Your task to perform on an android device: add a label to a message in the gmail app Image 0: 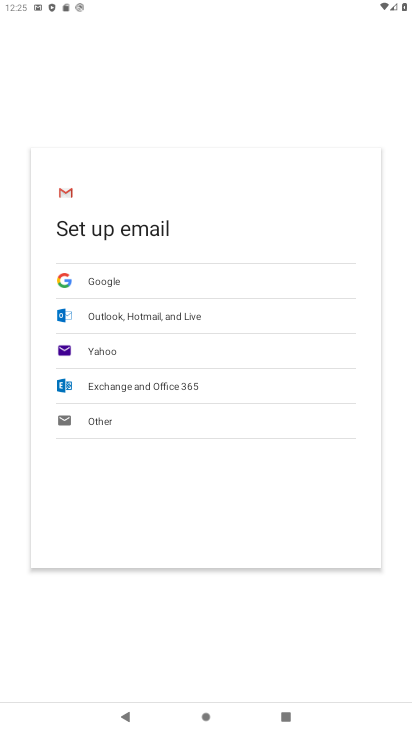
Step 0: drag from (266, 629) to (225, 178)
Your task to perform on an android device: add a label to a message in the gmail app Image 1: 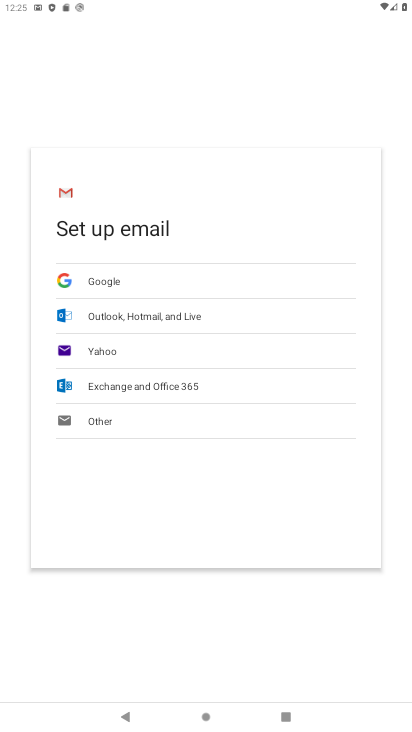
Step 1: press back button
Your task to perform on an android device: add a label to a message in the gmail app Image 2: 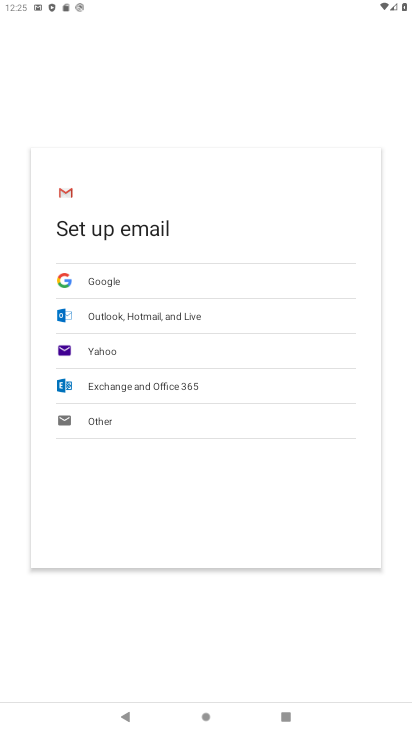
Step 2: press back button
Your task to perform on an android device: add a label to a message in the gmail app Image 3: 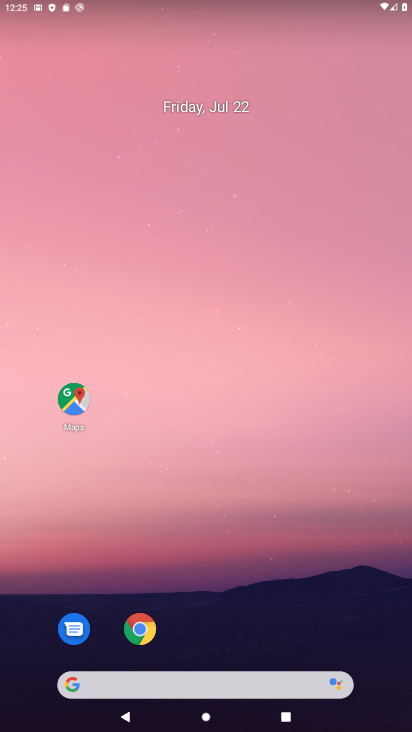
Step 3: drag from (290, 608) to (254, 77)
Your task to perform on an android device: add a label to a message in the gmail app Image 4: 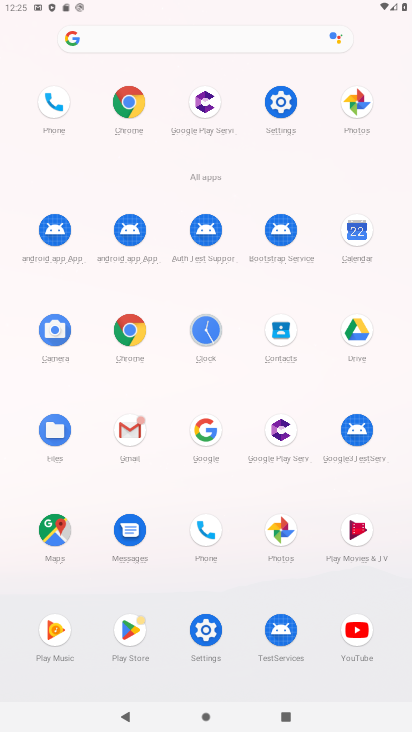
Step 4: drag from (265, 618) to (219, 174)
Your task to perform on an android device: add a label to a message in the gmail app Image 5: 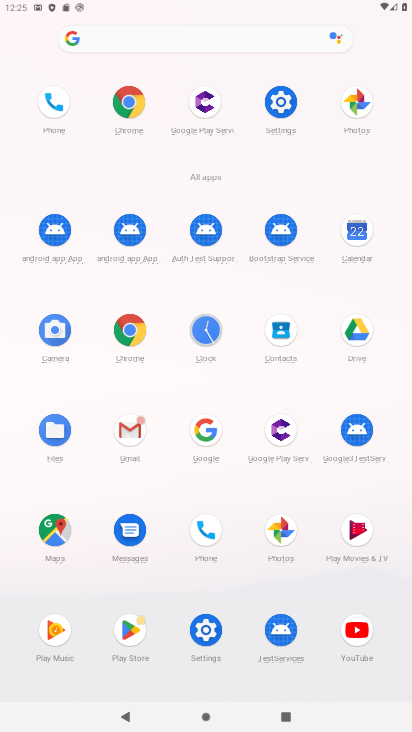
Step 5: click (123, 417)
Your task to perform on an android device: add a label to a message in the gmail app Image 6: 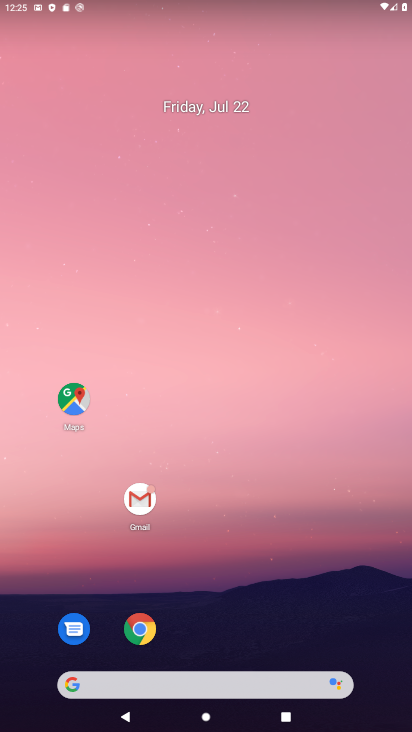
Step 6: click (133, 486)
Your task to perform on an android device: add a label to a message in the gmail app Image 7: 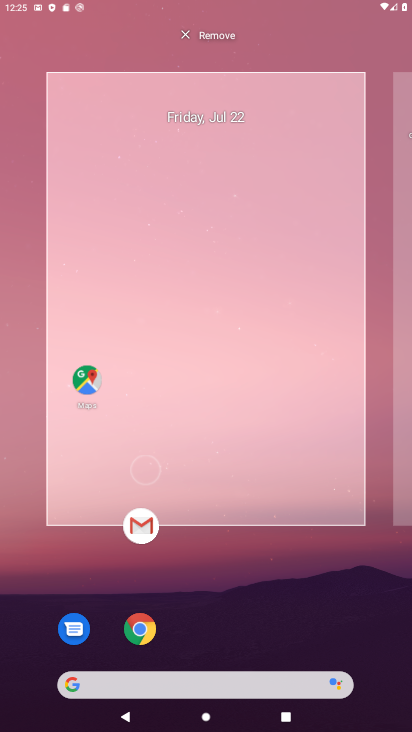
Step 7: drag from (144, 513) to (156, 473)
Your task to perform on an android device: add a label to a message in the gmail app Image 8: 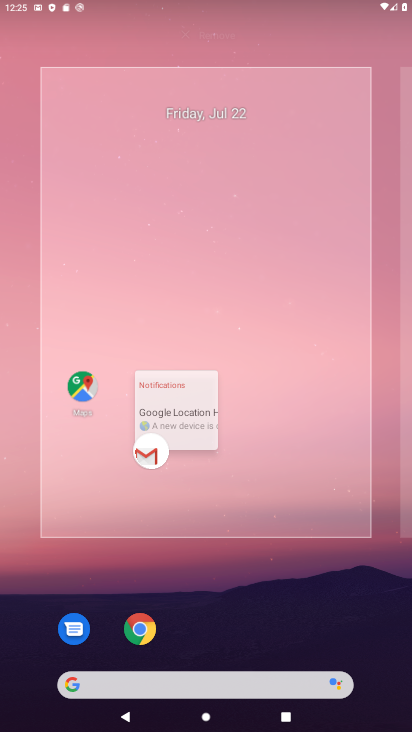
Step 8: click (157, 468)
Your task to perform on an android device: add a label to a message in the gmail app Image 9: 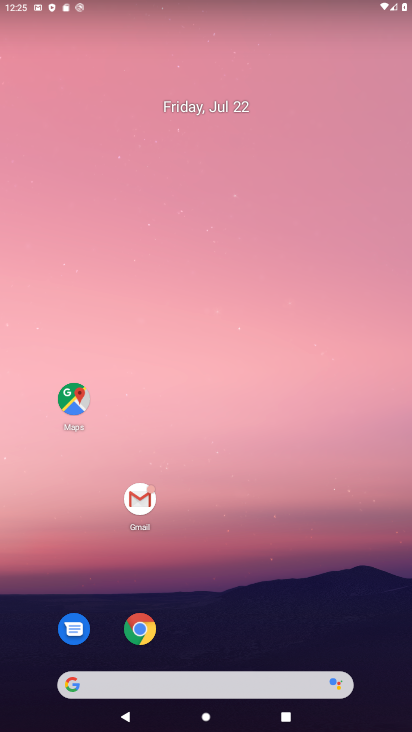
Step 9: drag from (222, 472) to (139, 35)
Your task to perform on an android device: add a label to a message in the gmail app Image 10: 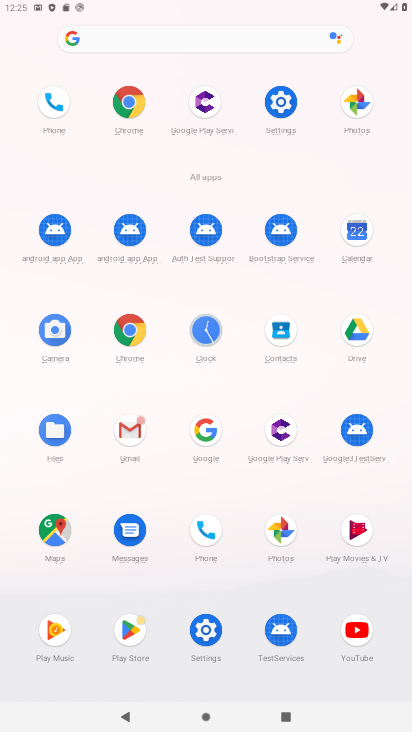
Step 10: drag from (244, 609) to (154, 114)
Your task to perform on an android device: add a label to a message in the gmail app Image 11: 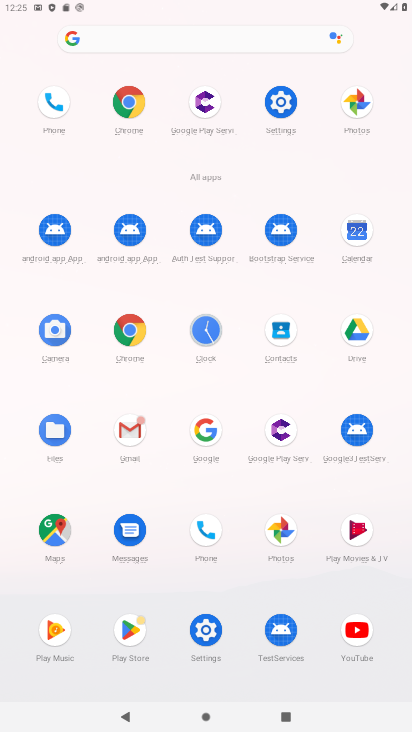
Step 11: click (137, 443)
Your task to perform on an android device: add a label to a message in the gmail app Image 12: 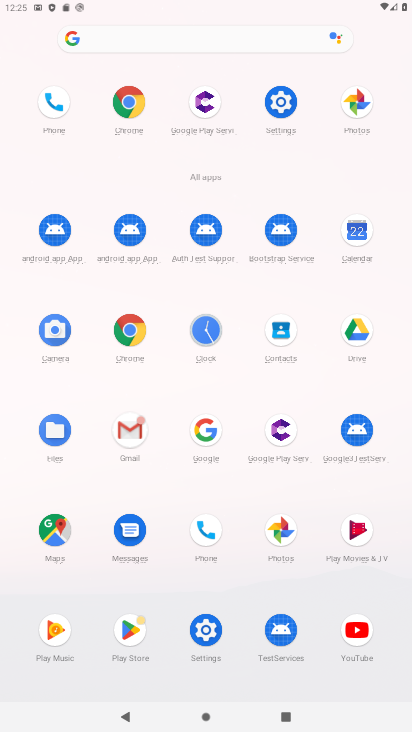
Step 12: click (131, 438)
Your task to perform on an android device: add a label to a message in the gmail app Image 13: 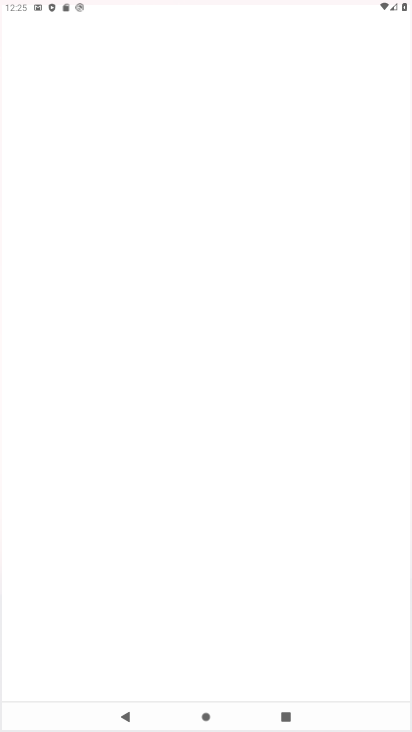
Step 13: click (131, 438)
Your task to perform on an android device: add a label to a message in the gmail app Image 14: 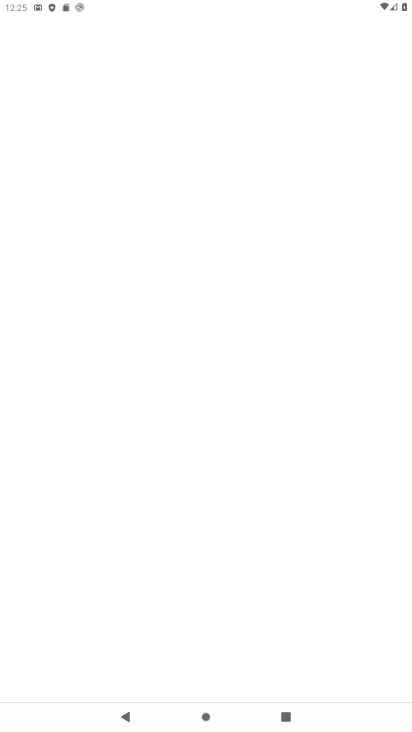
Step 14: click (127, 431)
Your task to perform on an android device: add a label to a message in the gmail app Image 15: 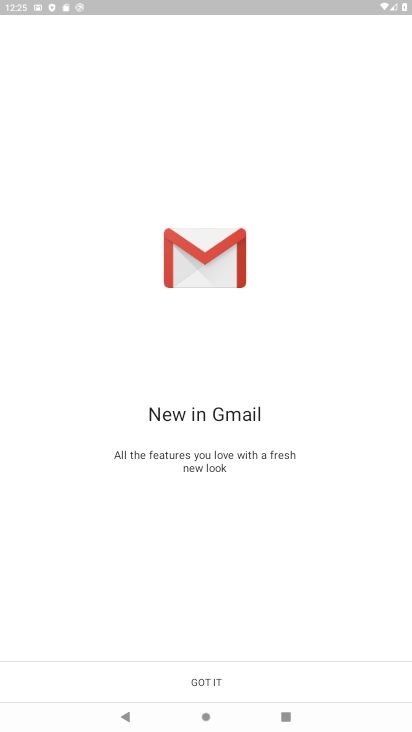
Step 15: click (204, 672)
Your task to perform on an android device: add a label to a message in the gmail app Image 16: 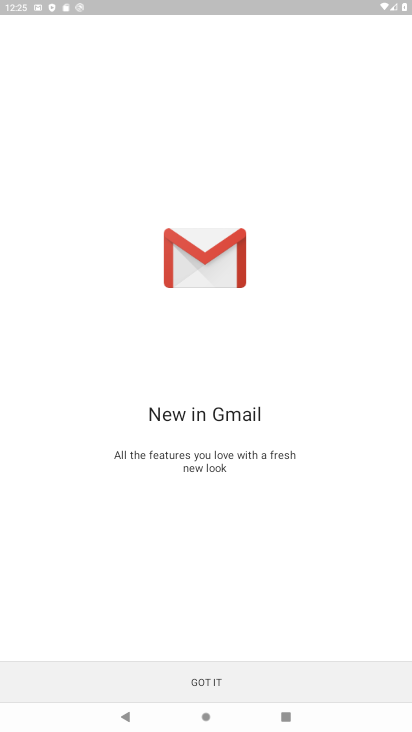
Step 16: click (201, 670)
Your task to perform on an android device: add a label to a message in the gmail app Image 17: 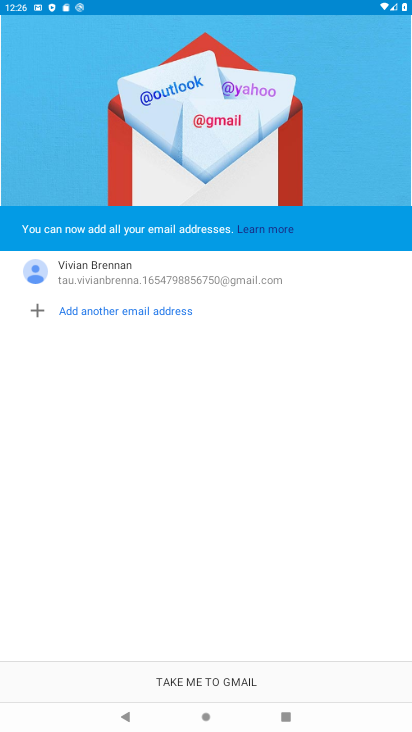
Step 17: click (199, 682)
Your task to perform on an android device: add a label to a message in the gmail app Image 18: 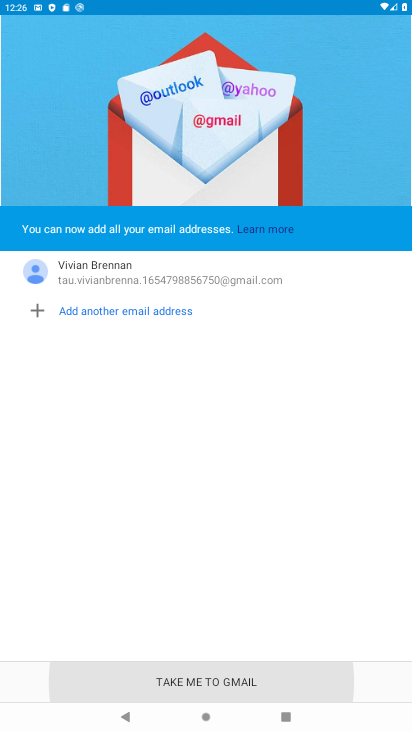
Step 18: click (199, 682)
Your task to perform on an android device: add a label to a message in the gmail app Image 19: 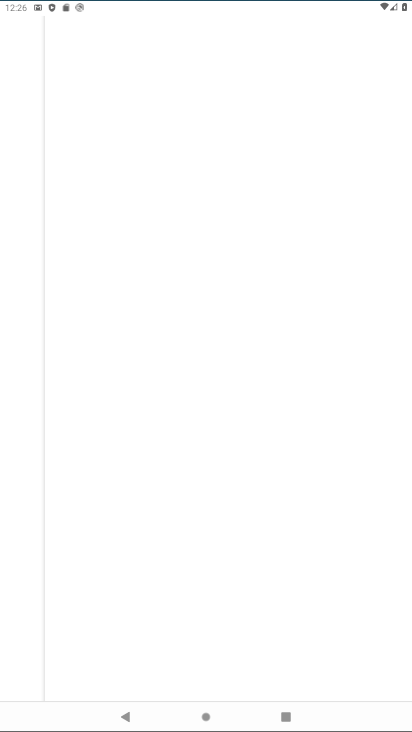
Step 19: click (230, 664)
Your task to perform on an android device: add a label to a message in the gmail app Image 20: 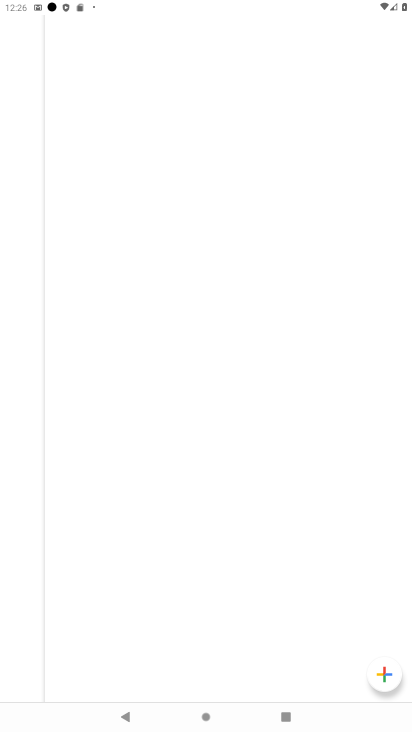
Step 20: click (239, 659)
Your task to perform on an android device: add a label to a message in the gmail app Image 21: 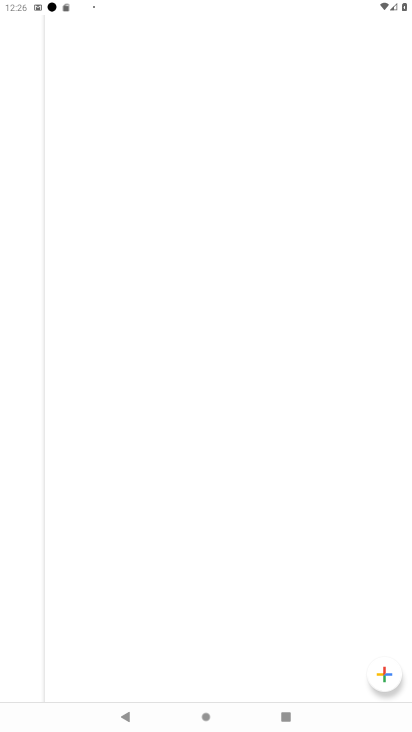
Step 21: click (241, 659)
Your task to perform on an android device: add a label to a message in the gmail app Image 22: 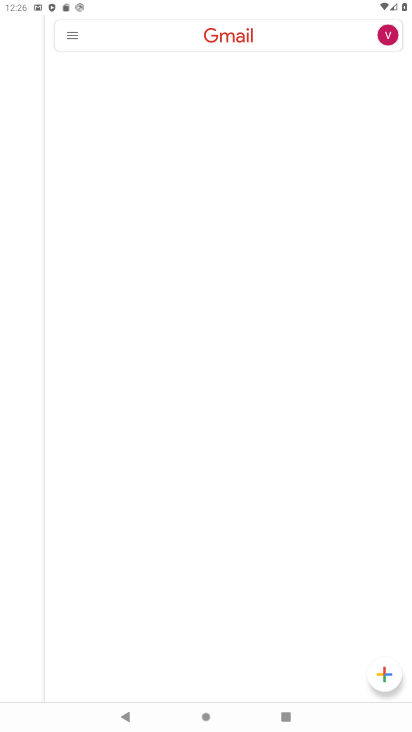
Step 22: click (243, 659)
Your task to perform on an android device: add a label to a message in the gmail app Image 23: 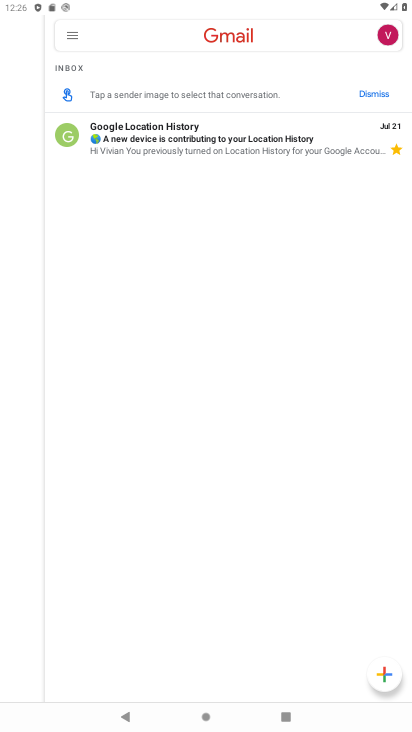
Step 23: click (261, 652)
Your task to perform on an android device: add a label to a message in the gmail app Image 24: 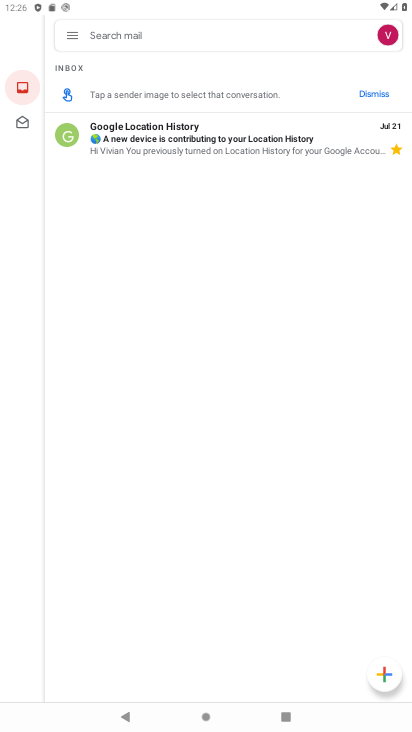
Step 24: click (166, 142)
Your task to perform on an android device: add a label to a message in the gmail app Image 25: 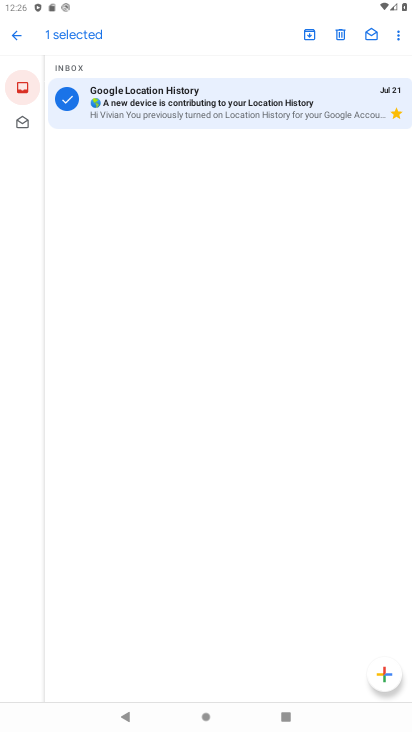
Step 25: click (396, 33)
Your task to perform on an android device: add a label to a message in the gmail app Image 26: 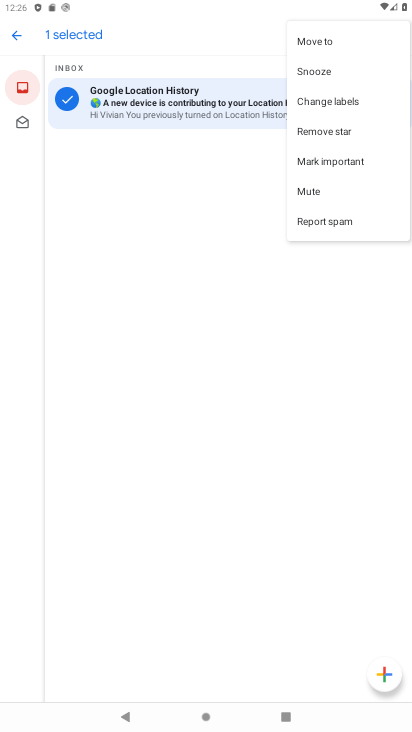
Step 26: click (324, 105)
Your task to perform on an android device: add a label to a message in the gmail app Image 27: 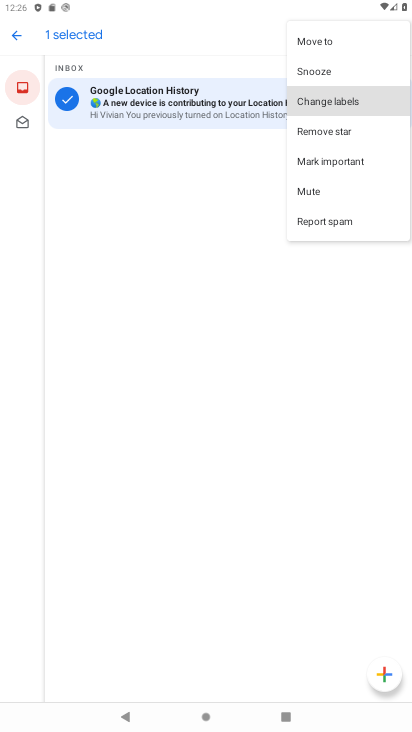
Step 27: click (326, 102)
Your task to perform on an android device: add a label to a message in the gmail app Image 28: 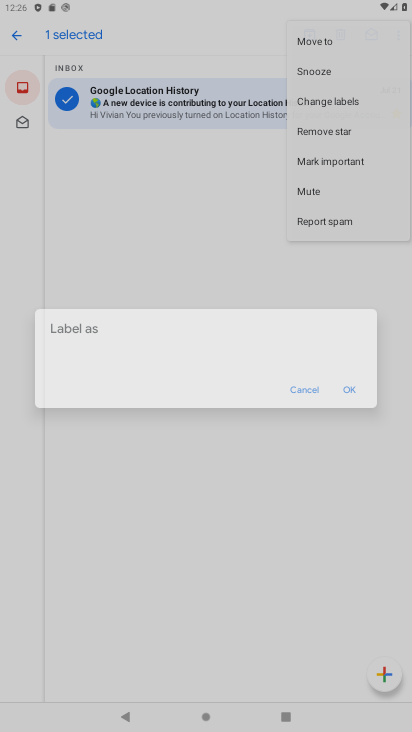
Step 28: click (327, 102)
Your task to perform on an android device: add a label to a message in the gmail app Image 29: 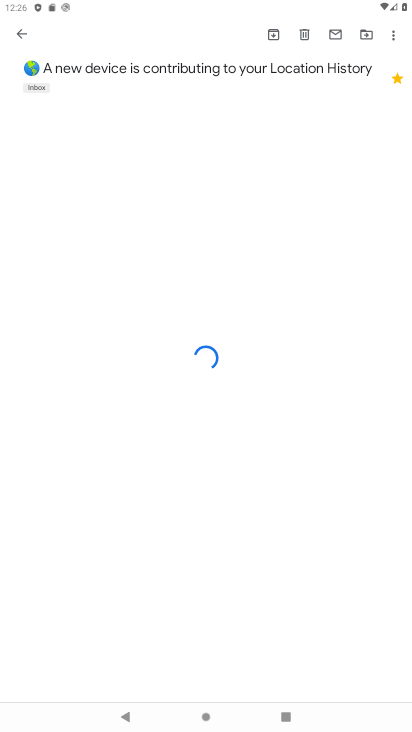
Step 29: task complete